Your task to perform on an android device: turn on sleep mode Image 0: 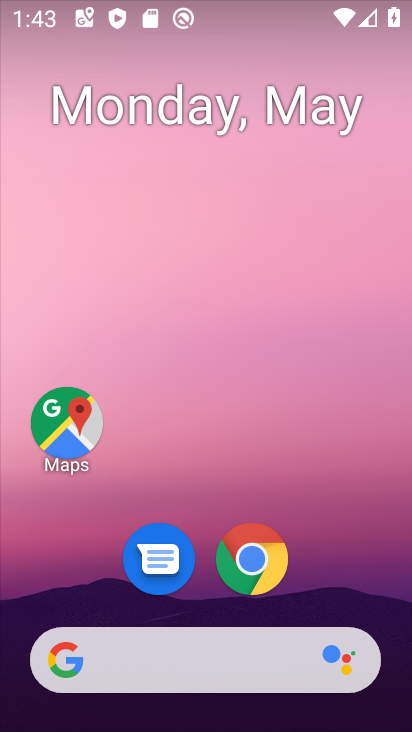
Step 0: press home button
Your task to perform on an android device: turn on sleep mode Image 1: 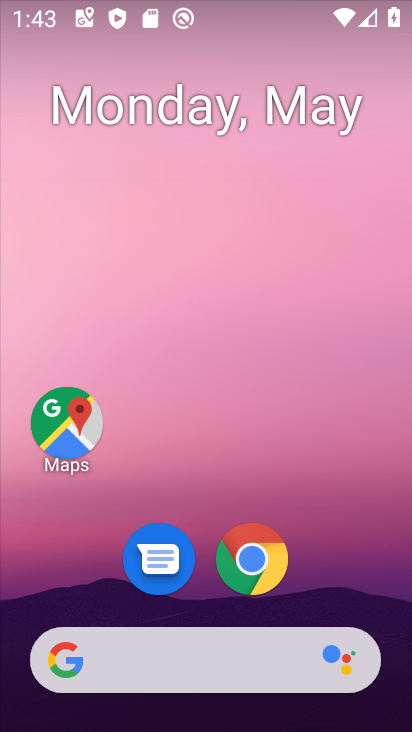
Step 1: drag from (341, 565) to (306, 300)
Your task to perform on an android device: turn on sleep mode Image 2: 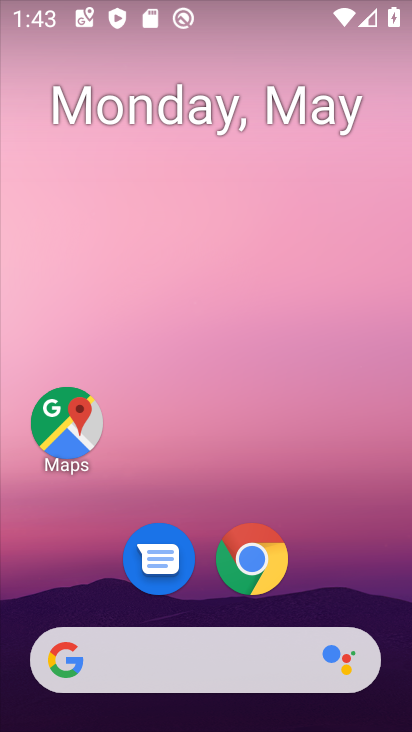
Step 2: drag from (327, 560) to (306, 132)
Your task to perform on an android device: turn on sleep mode Image 3: 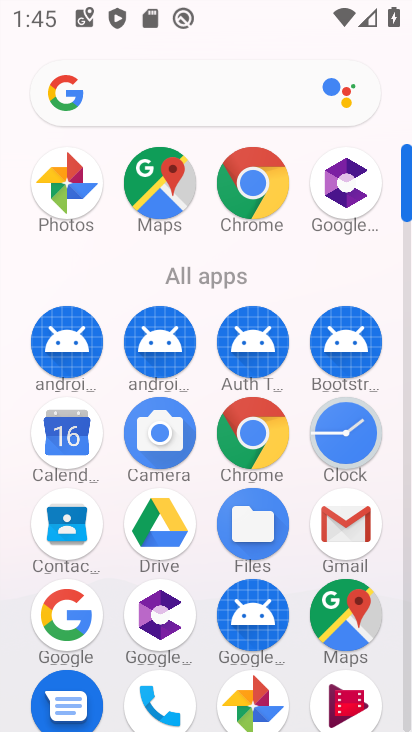
Step 3: click (409, 693)
Your task to perform on an android device: turn on sleep mode Image 4: 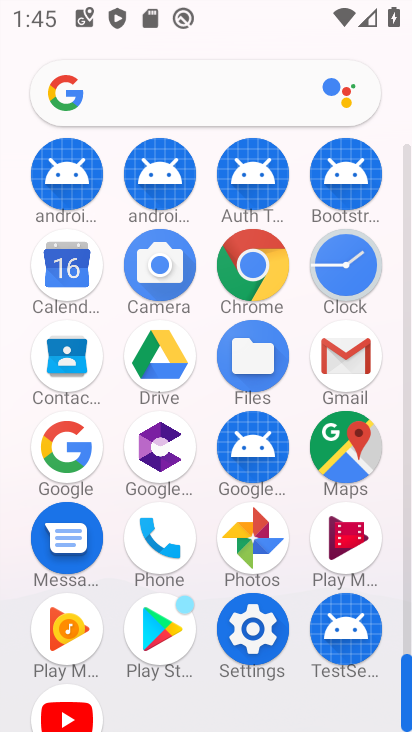
Step 4: click (272, 643)
Your task to perform on an android device: turn on sleep mode Image 5: 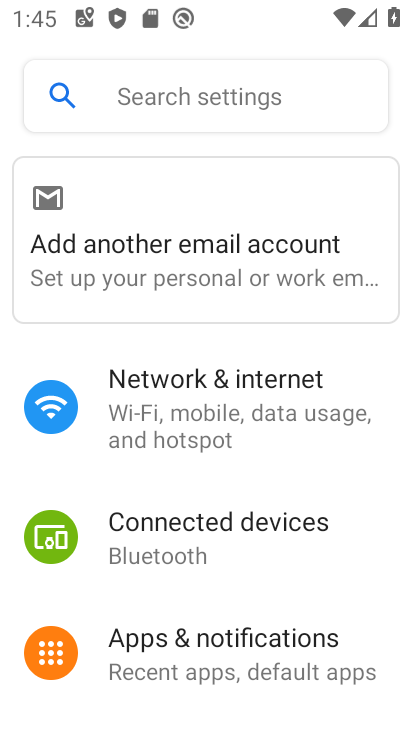
Step 5: drag from (241, 547) to (208, 387)
Your task to perform on an android device: turn on sleep mode Image 6: 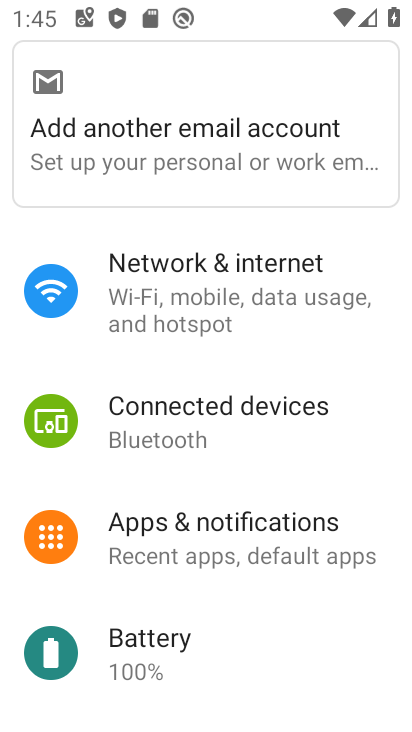
Step 6: drag from (285, 598) to (258, 266)
Your task to perform on an android device: turn on sleep mode Image 7: 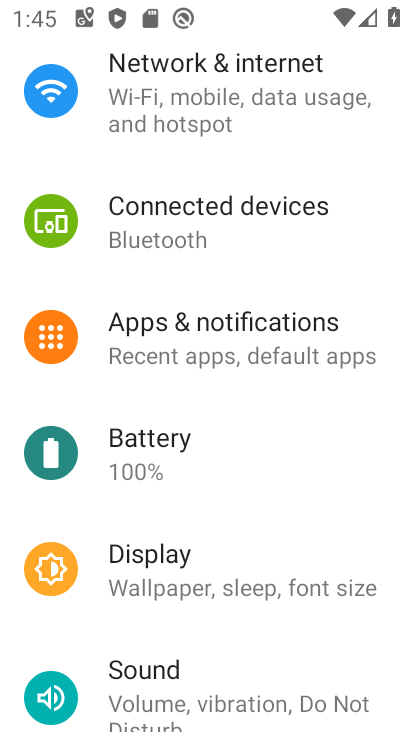
Step 7: click (163, 554)
Your task to perform on an android device: turn on sleep mode Image 8: 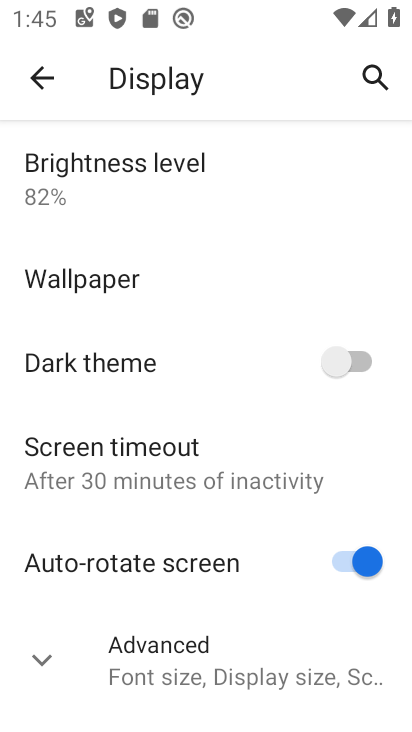
Step 8: task complete